Your task to perform on an android device: open a new tab in the chrome app Image 0: 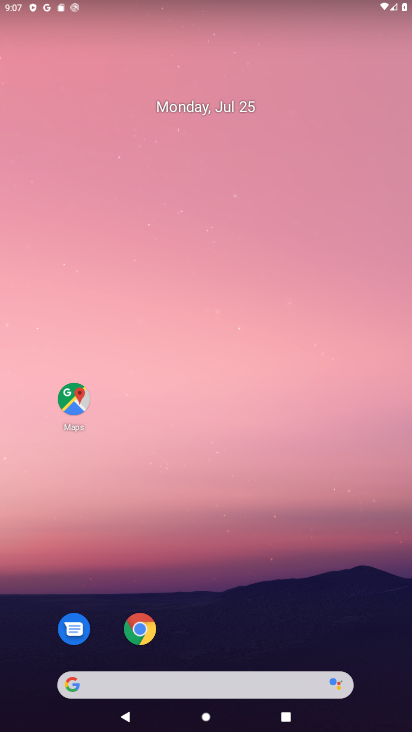
Step 0: click (140, 627)
Your task to perform on an android device: open a new tab in the chrome app Image 1: 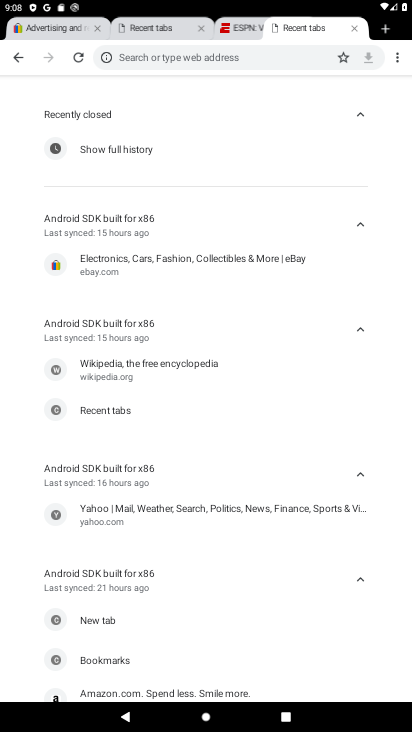
Step 1: click (383, 31)
Your task to perform on an android device: open a new tab in the chrome app Image 2: 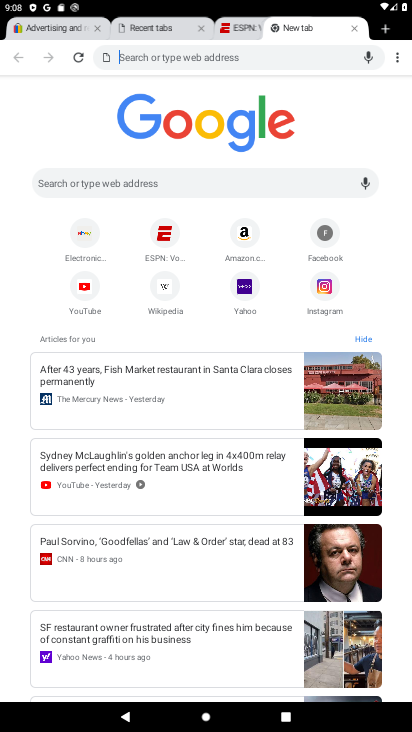
Step 2: task complete